Your task to perform on an android device: refresh tabs in the chrome app Image 0: 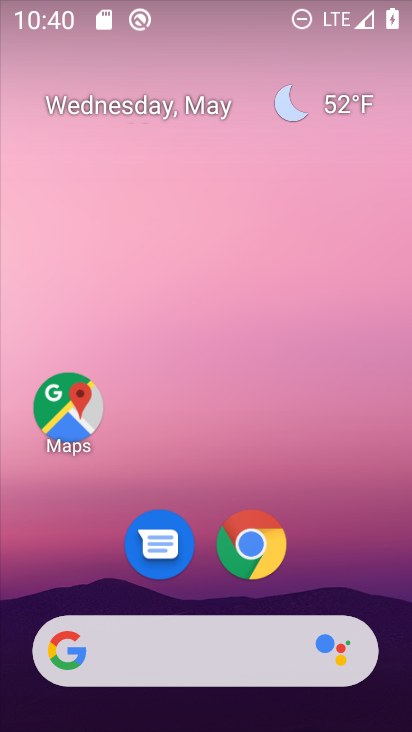
Step 0: click (269, 539)
Your task to perform on an android device: refresh tabs in the chrome app Image 1: 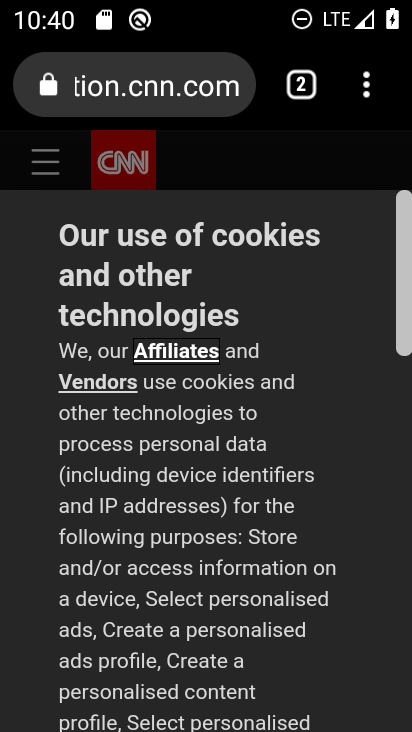
Step 1: click (379, 93)
Your task to perform on an android device: refresh tabs in the chrome app Image 2: 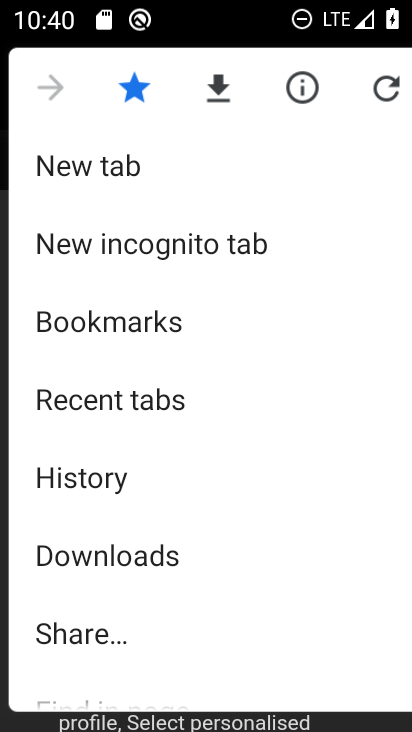
Step 2: click (385, 95)
Your task to perform on an android device: refresh tabs in the chrome app Image 3: 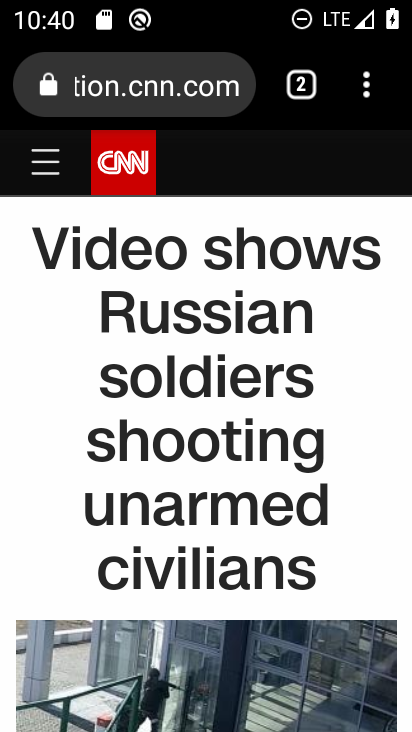
Step 3: task complete